Your task to perform on an android device: What's on my calendar tomorrow? Image 0: 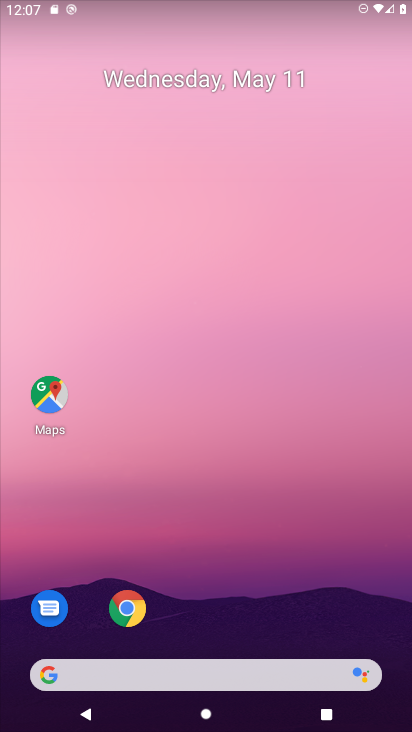
Step 0: drag from (279, 536) to (260, 113)
Your task to perform on an android device: What's on my calendar tomorrow? Image 1: 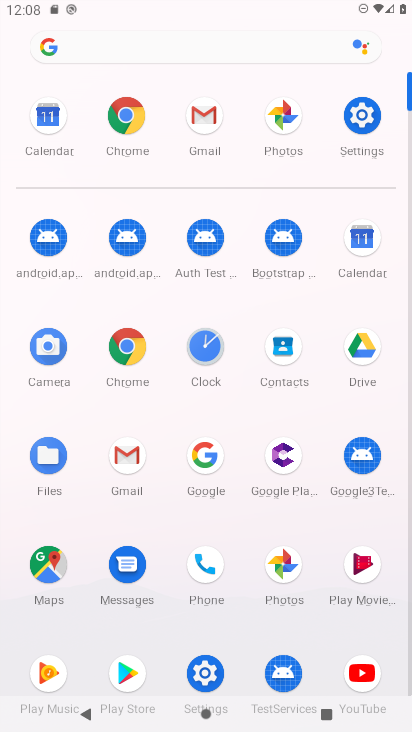
Step 1: click (42, 115)
Your task to perform on an android device: What's on my calendar tomorrow? Image 2: 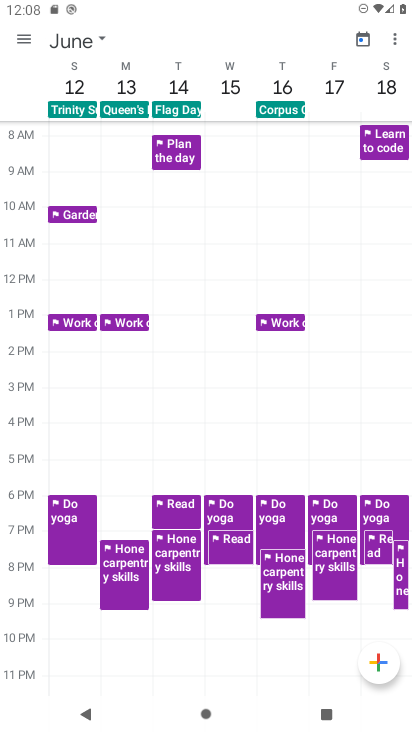
Step 2: click (23, 36)
Your task to perform on an android device: What's on my calendar tomorrow? Image 3: 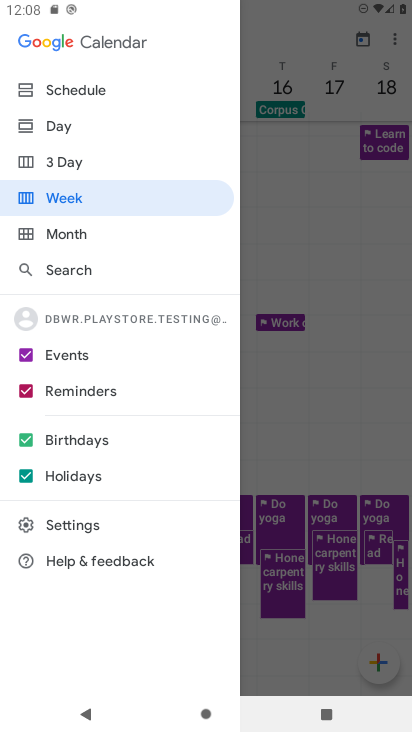
Step 3: click (74, 230)
Your task to perform on an android device: What's on my calendar tomorrow? Image 4: 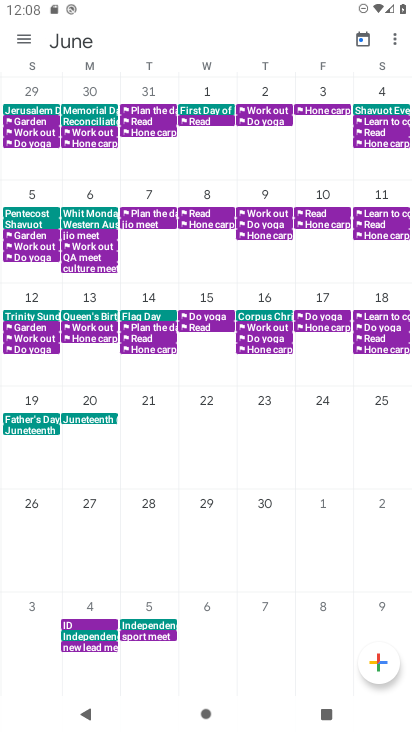
Step 4: drag from (49, 379) to (411, 502)
Your task to perform on an android device: What's on my calendar tomorrow? Image 5: 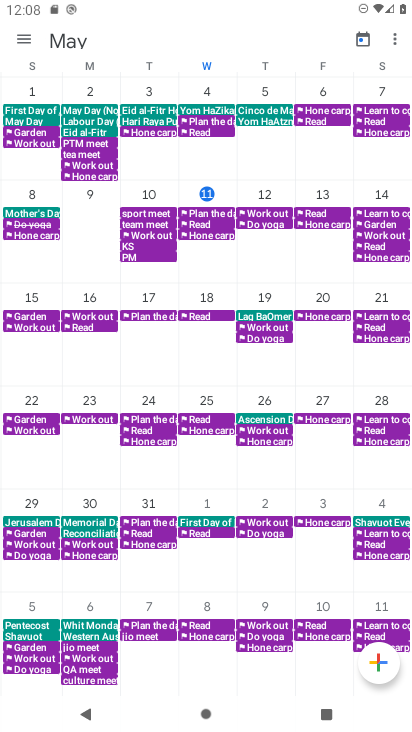
Step 5: click (262, 213)
Your task to perform on an android device: What's on my calendar tomorrow? Image 6: 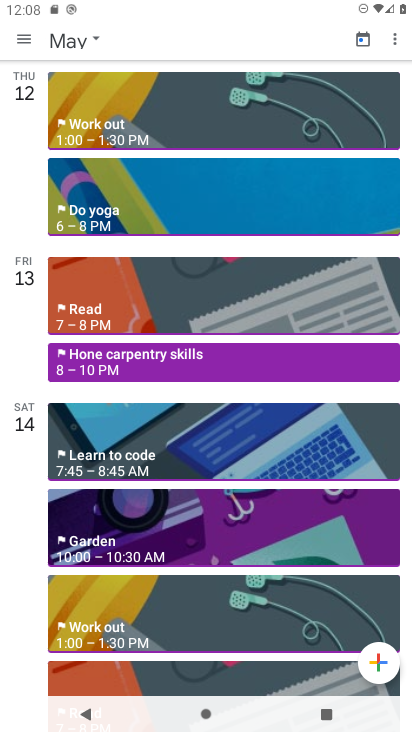
Step 6: task complete